Your task to perform on an android device: When is my next appointment? Image 0: 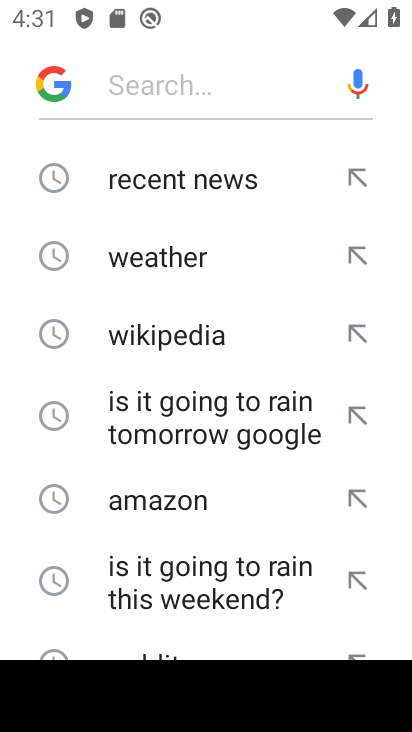
Step 0: press home button
Your task to perform on an android device: When is my next appointment? Image 1: 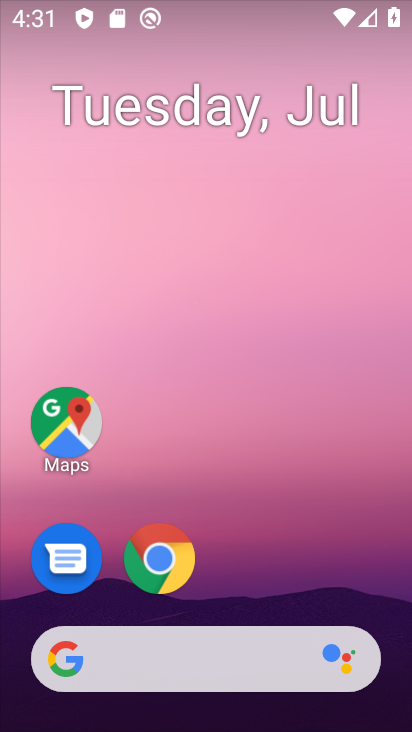
Step 1: drag from (254, 643) to (238, 205)
Your task to perform on an android device: When is my next appointment? Image 2: 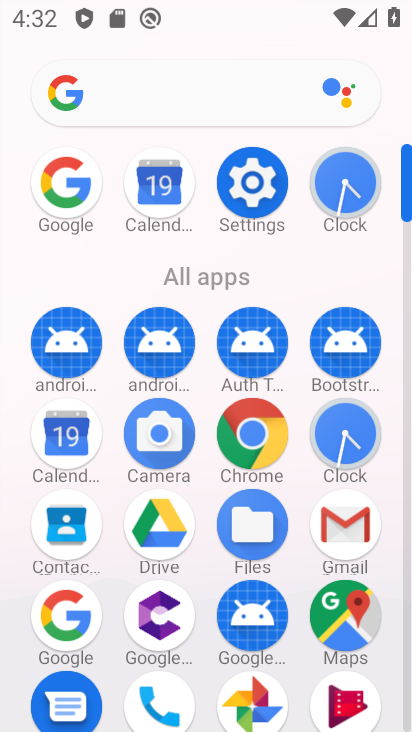
Step 2: click (83, 438)
Your task to perform on an android device: When is my next appointment? Image 3: 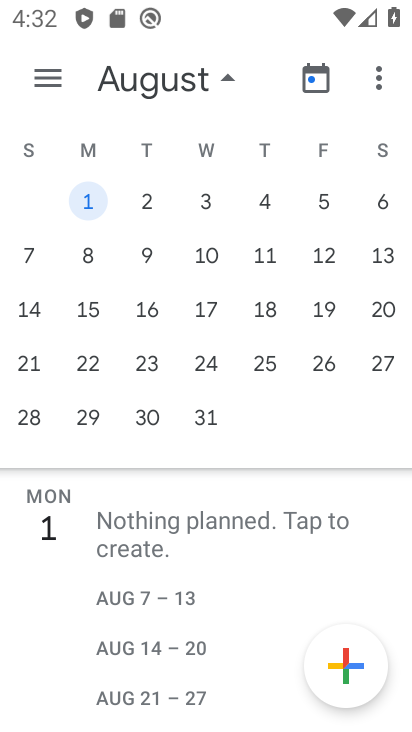
Step 3: click (55, 87)
Your task to perform on an android device: When is my next appointment? Image 4: 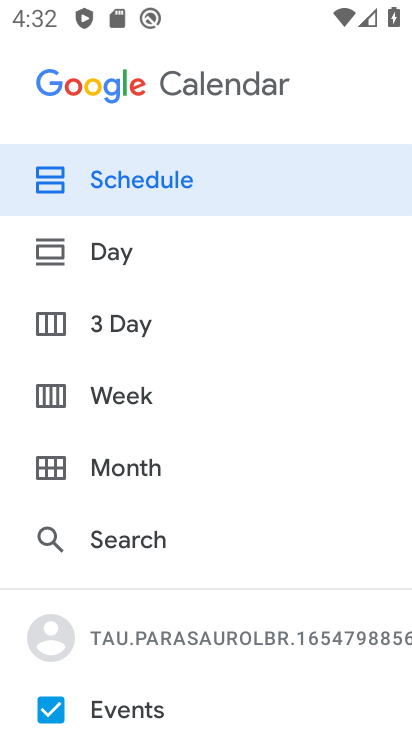
Step 4: drag from (218, 684) to (214, 404)
Your task to perform on an android device: When is my next appointment? Image 5: 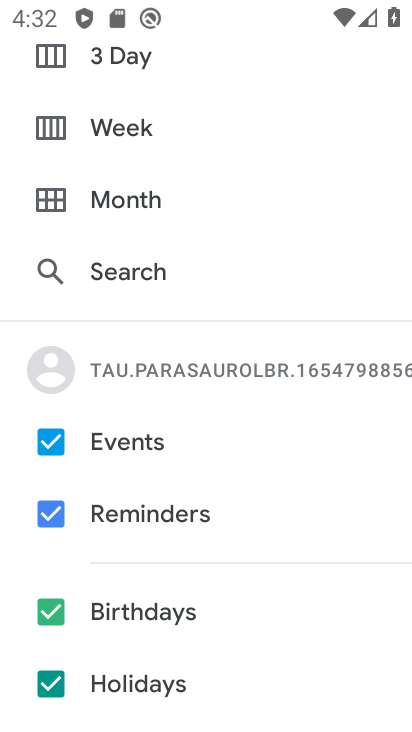
Step 5: click (57, 610)
Your task to perform on an android device: When is my next appointment? Image 6: 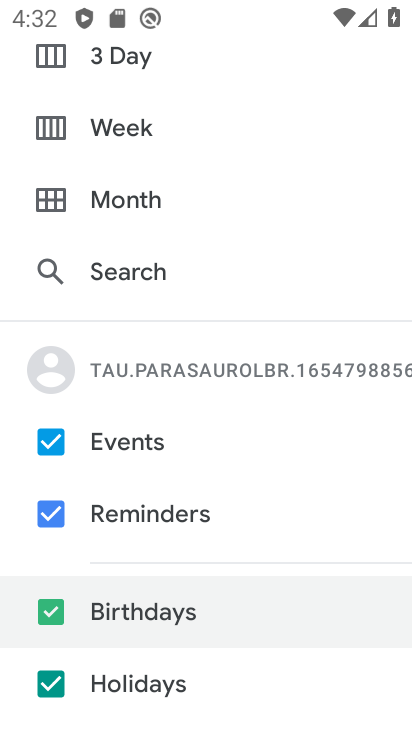
Step 6: click (60, 681)
Your task to perform on an android device: When is my next appointment? Image 7: 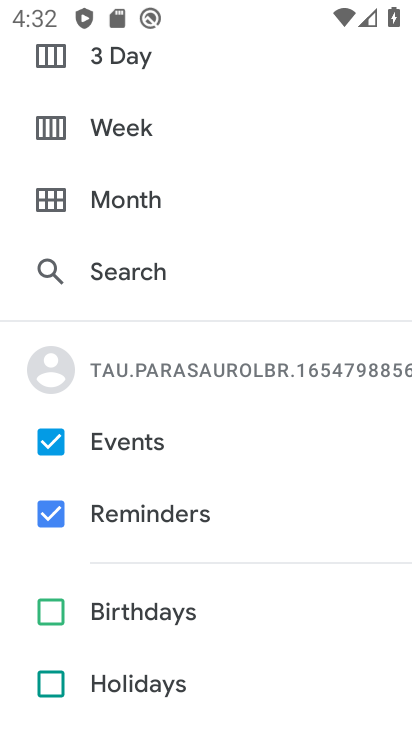
Step 7: press back button
Your task to perform on an android device: When is my next appointment? Image 8: 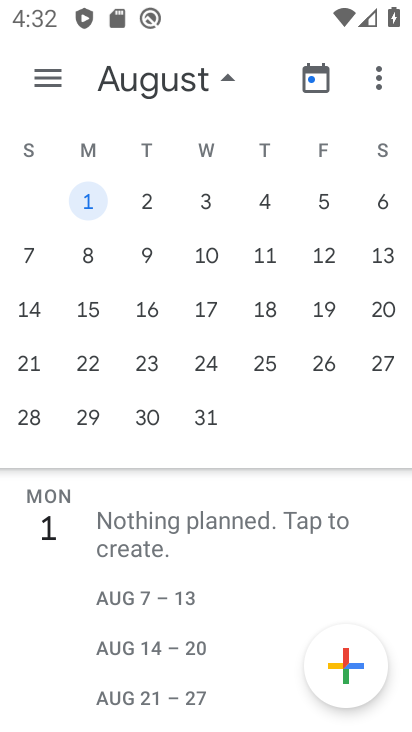
Step 8: drag from (73, 319) to (410, 363)
Your task to perform on an android device: When is my next appointment? Image 9: 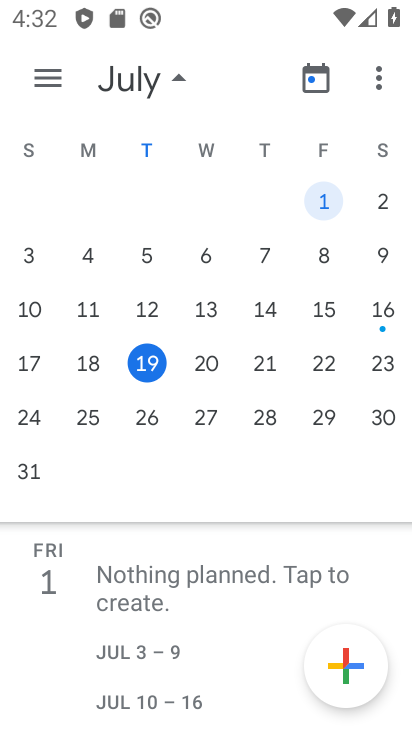
Step 9: click (150, 372)
Your task to perform on an android device: When is my next appointment? Image 10: 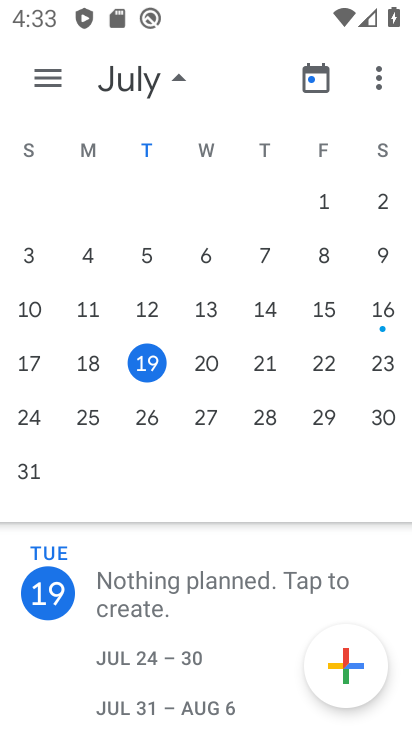
Step 10: task complete